Your task to perform on an android device: Open Google Chrome and click the shortcut for Amazon.com Image 0: 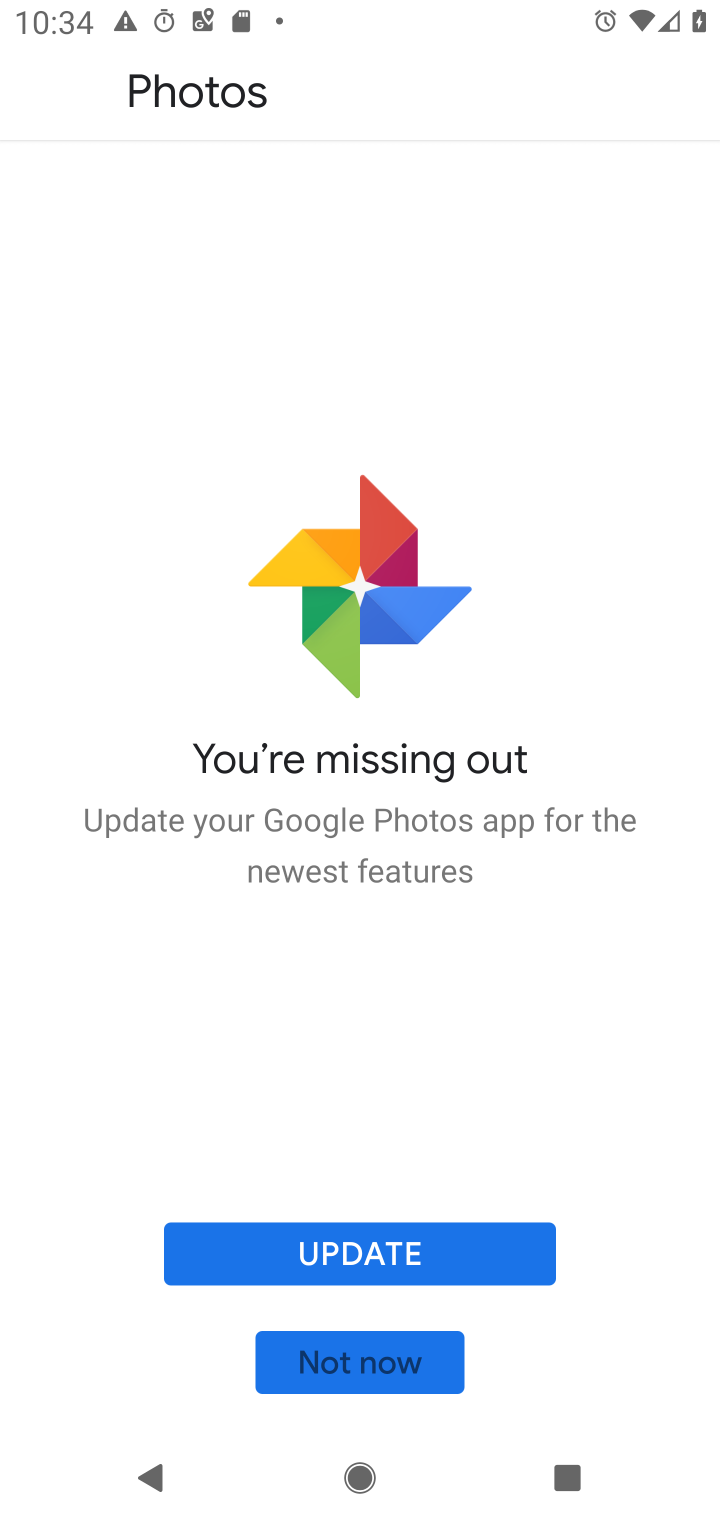
Step 0: press home button
Your task to perform on an android device: Open Google Chrome and click the shortcut for Amazon.com Image 1: 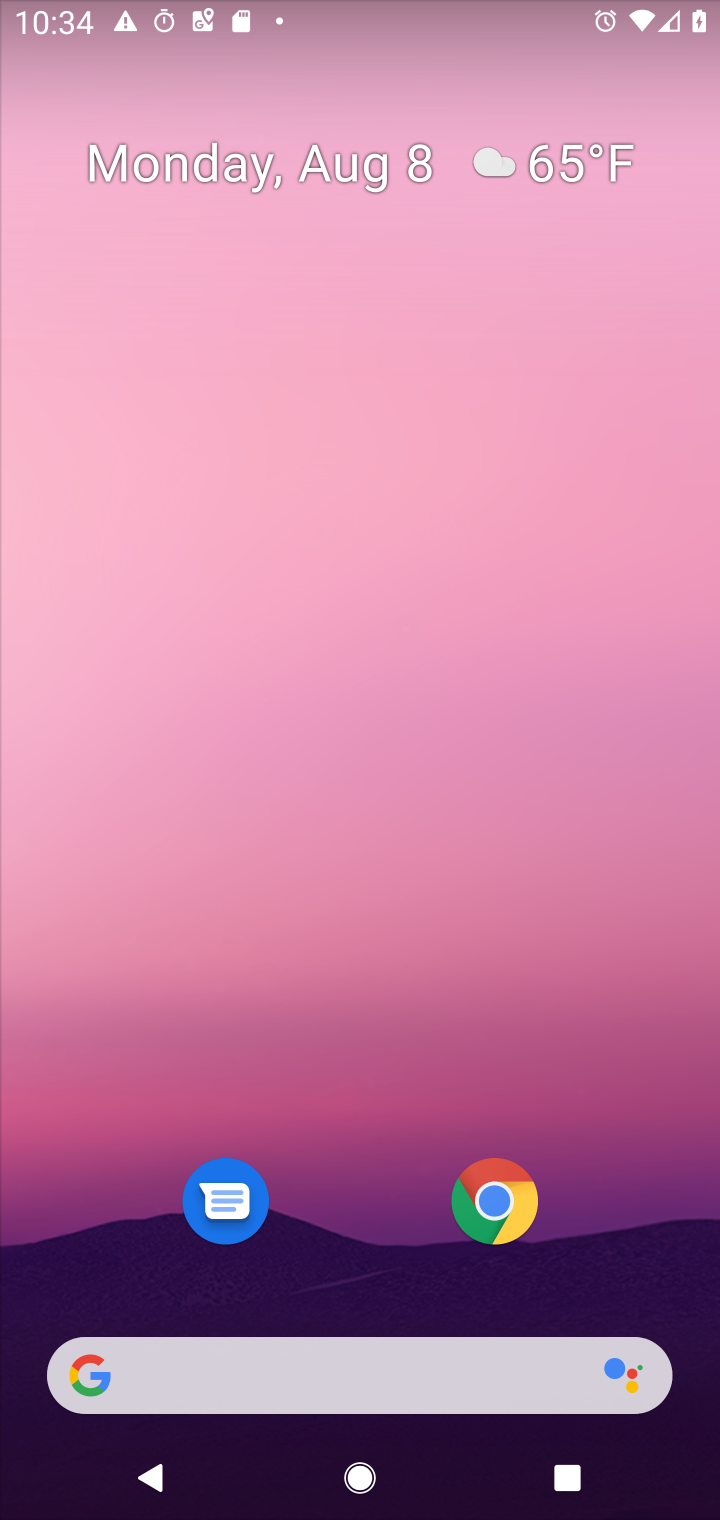
Step 1: drag from (366, 1158) to (426, 275)
Your task to perform on an android device: Open Google Chrome and click the shortcut for Amazon.com Image 2: 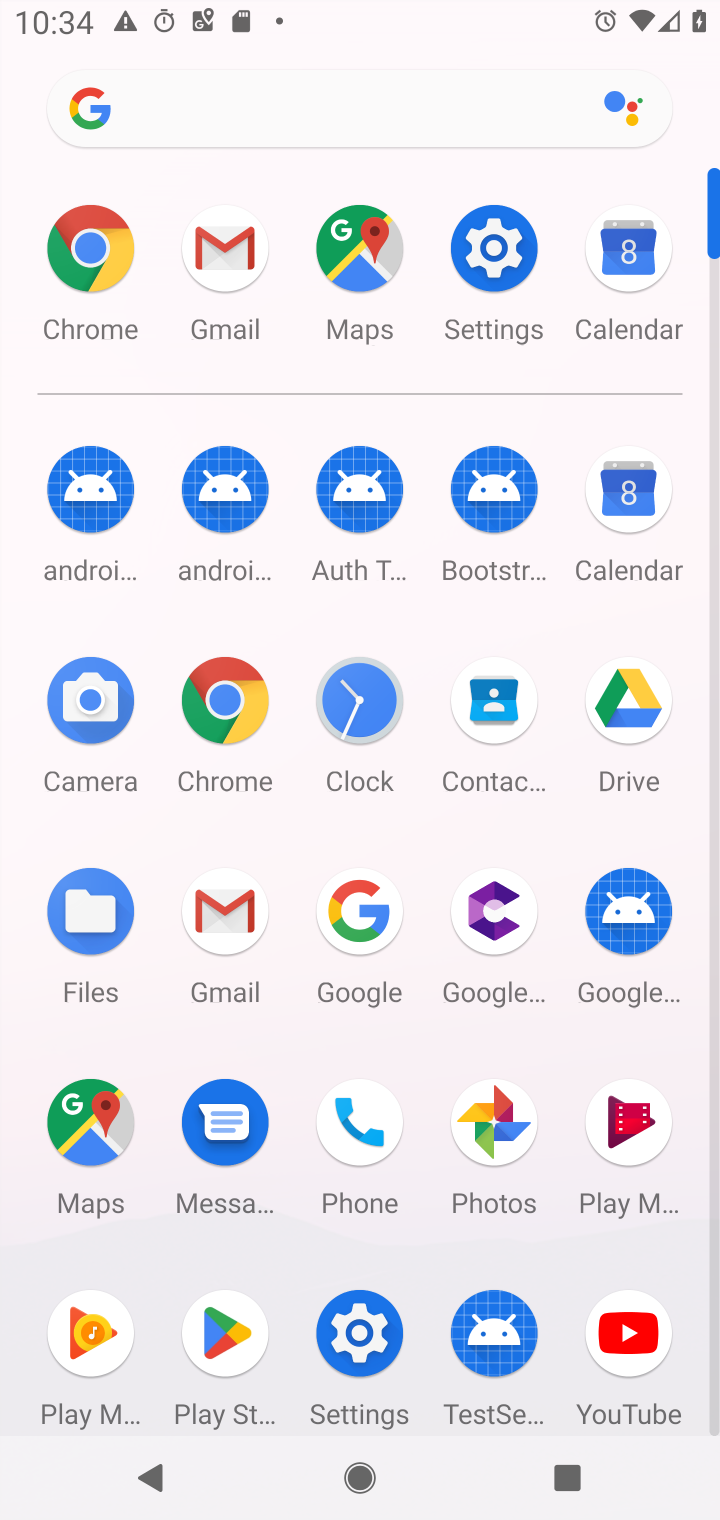
Step 2: click (221, 705)
Your task to perform on an android device: Open Google Chrome and click the shortcut for Amazon.com Image 3: 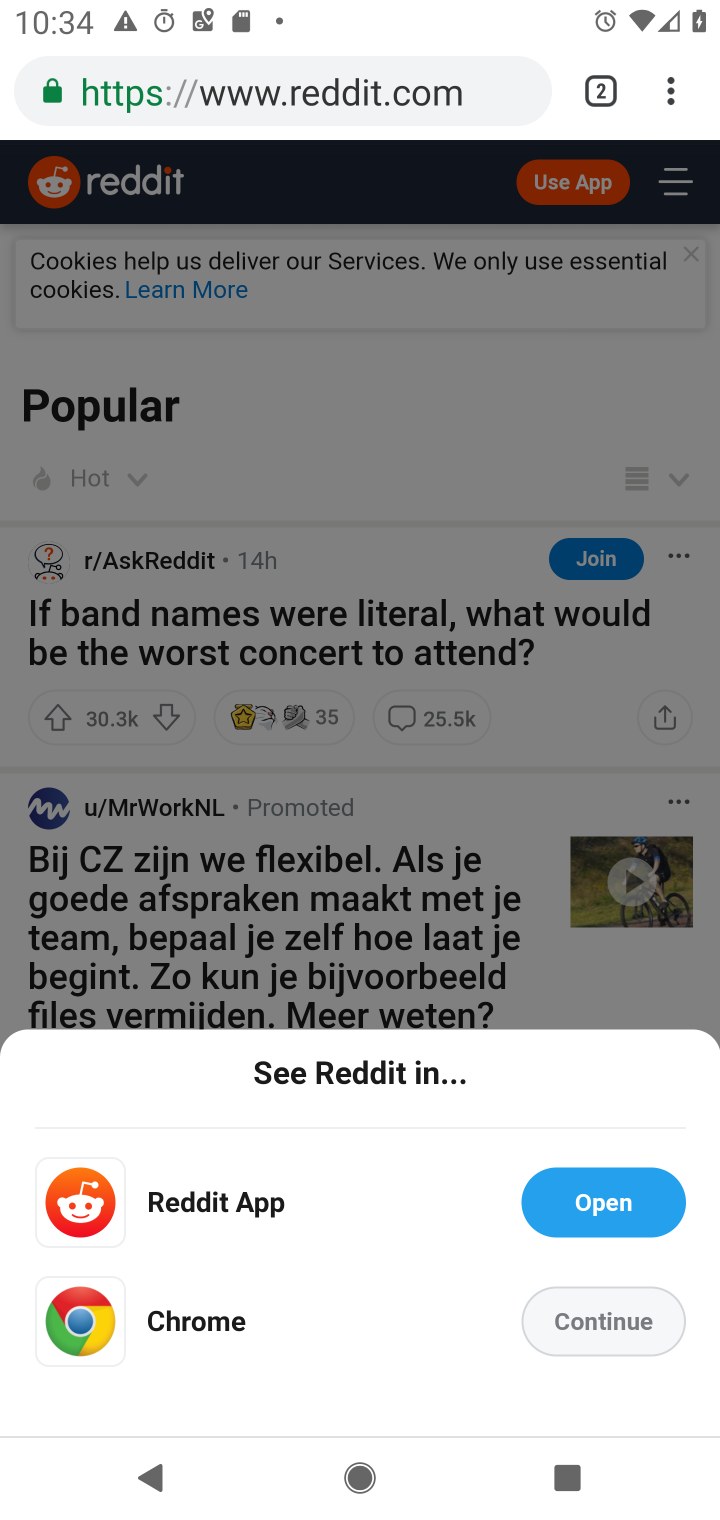
Step 3: press back button
Your task to perform on an android device: Open Google Chrome and click the shortcut for Amazon.com Image 4: 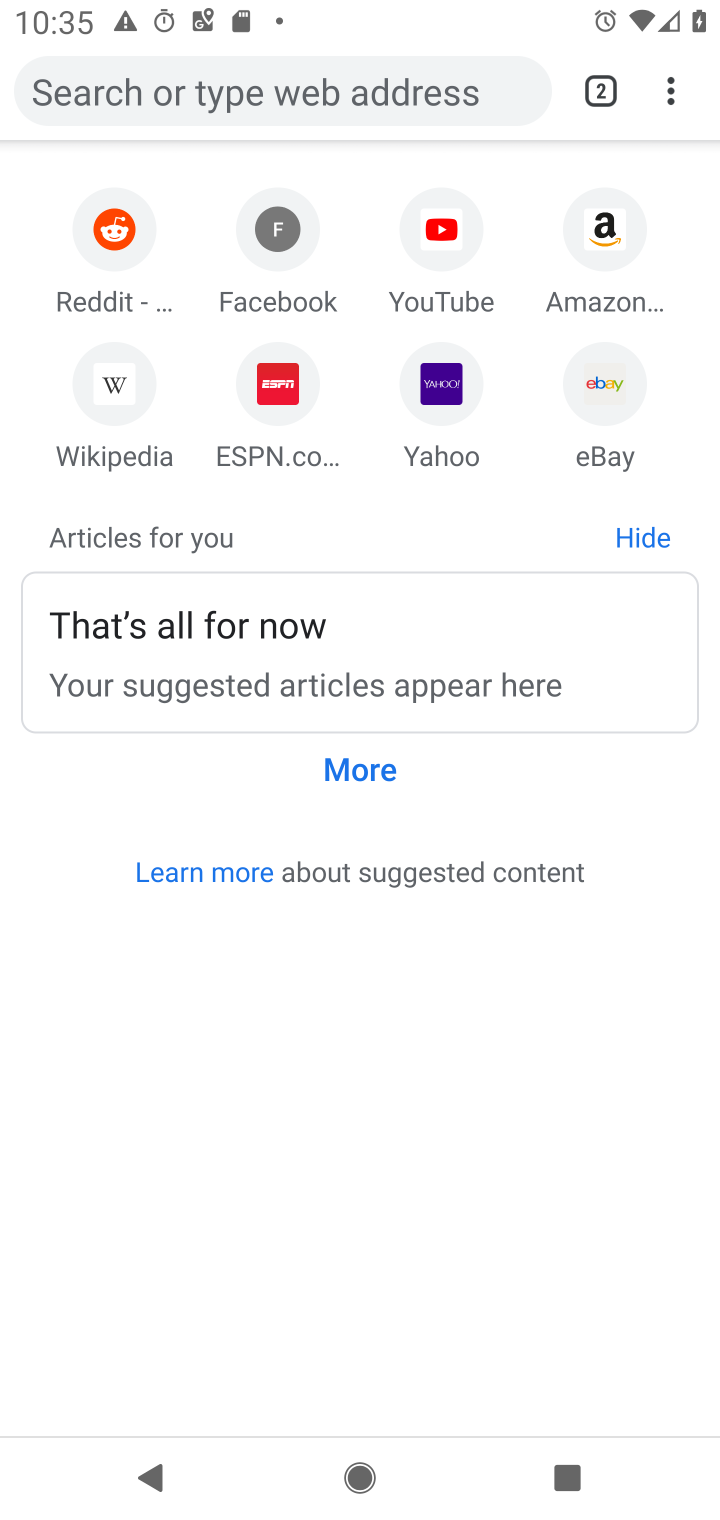
Step 4: click (602, 224)
Your task to perform on an android device: Open Google Chrome and click the shortcut for Amazon.com Image 5: 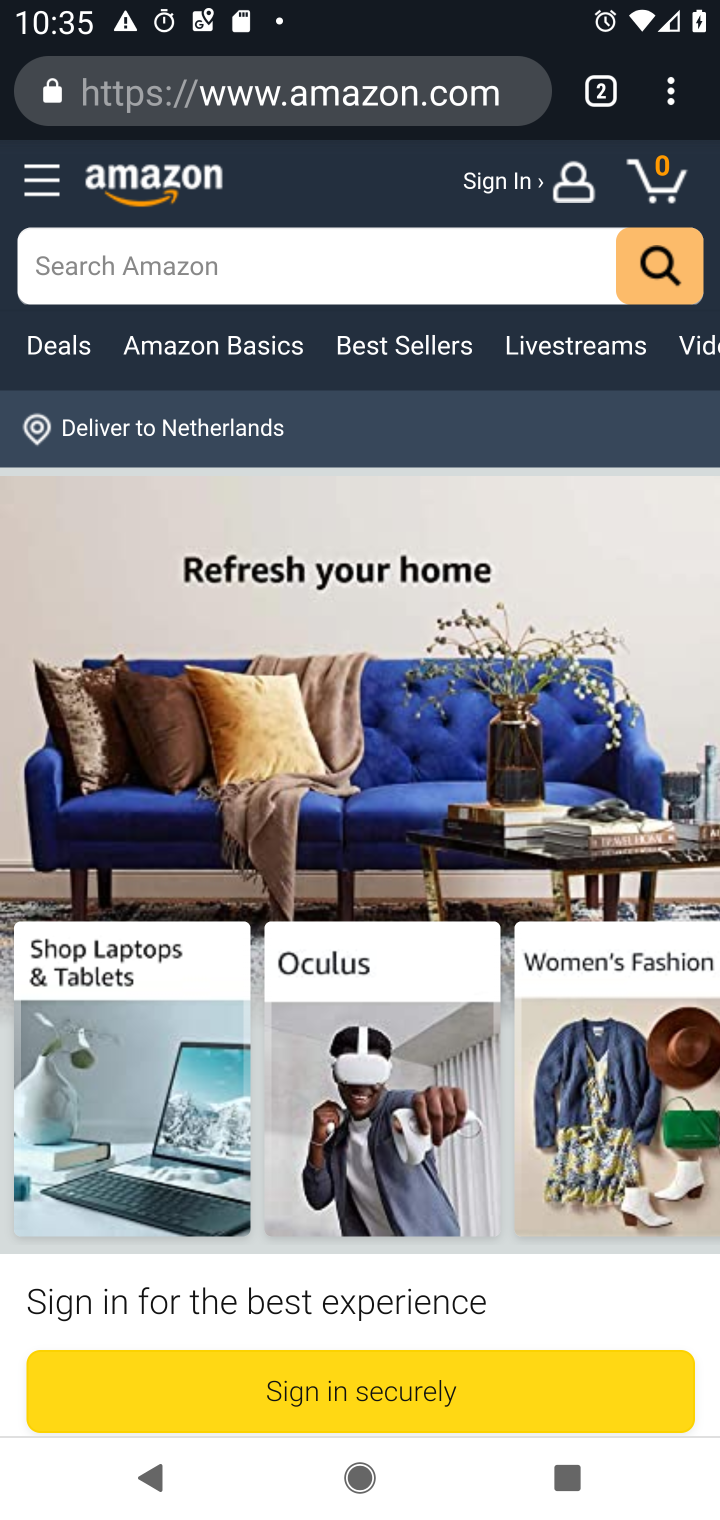
Step 5: task complete